Your task to perform on an android device: What is the news today? Image 0: 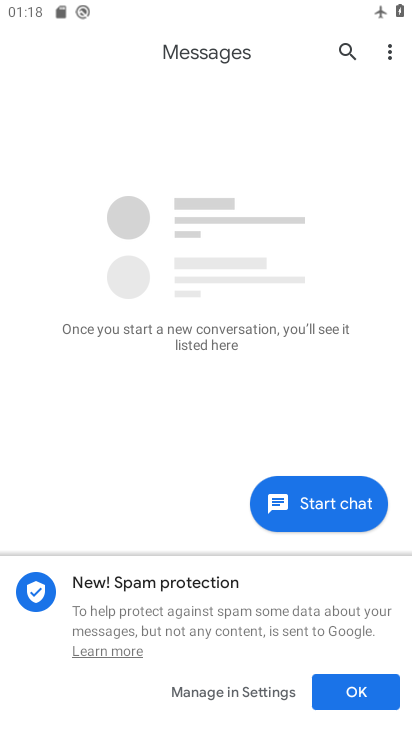
Step 0: press home button
Your task to perform on an android device: What is the news today? Image 1: 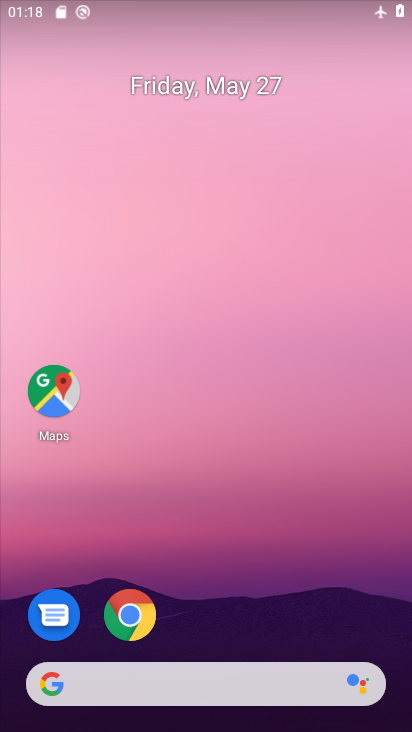
Step 1: drag from (5, 277) to (406, 375)
Your task to perform on an android device: What is the news today? Image 2: 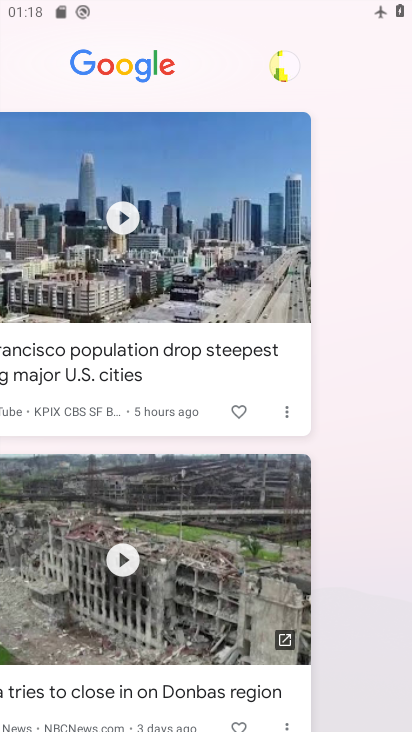
Step 2: drag from (306, 385) to (411, 596)
Your task to perform on an android device: What is the news today? Image 3: 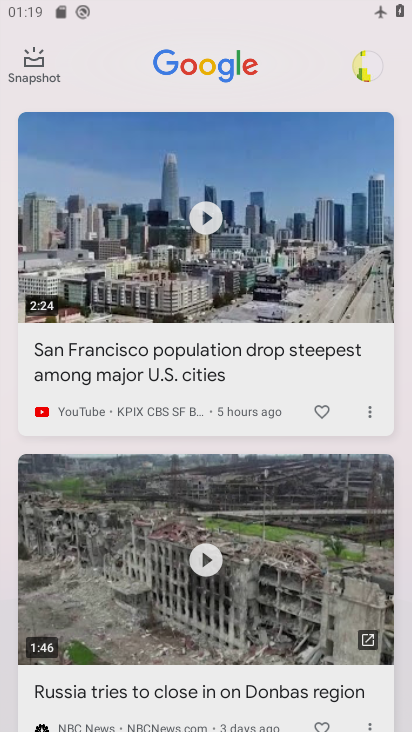
Step 3: drag from (387, 600) to (384, 525)
Your task to perform on an android device: What is the news today? Image 4: 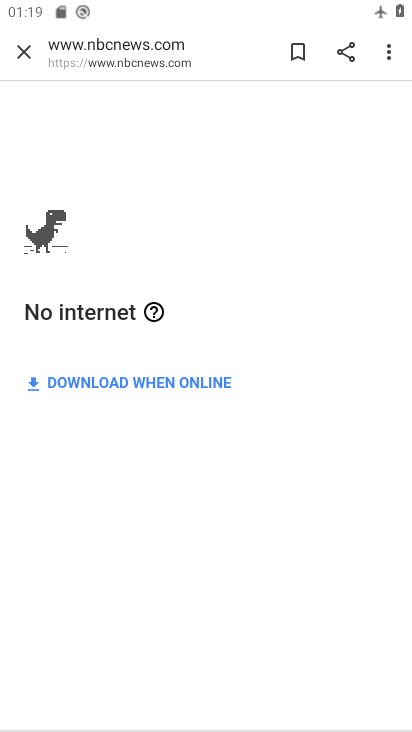
Step 4: press home button
Your task to perform on an android device: What is the news today? Image 5: 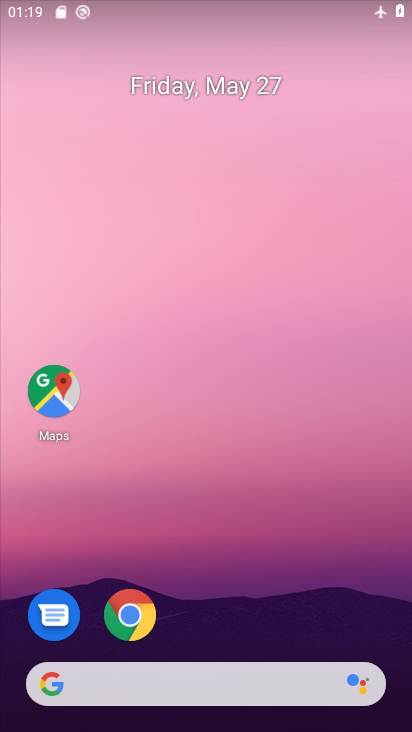
Step 5: drag from (3, 236) to (411, 365)
Your task to perform on an android device: What is the news today? Image 6: 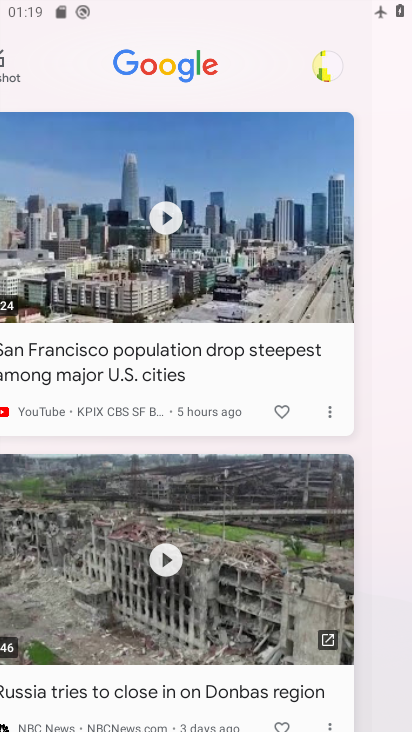
Step 6: click (392, 369)
Your task to perform on an android device: What is the news today? Image 7: 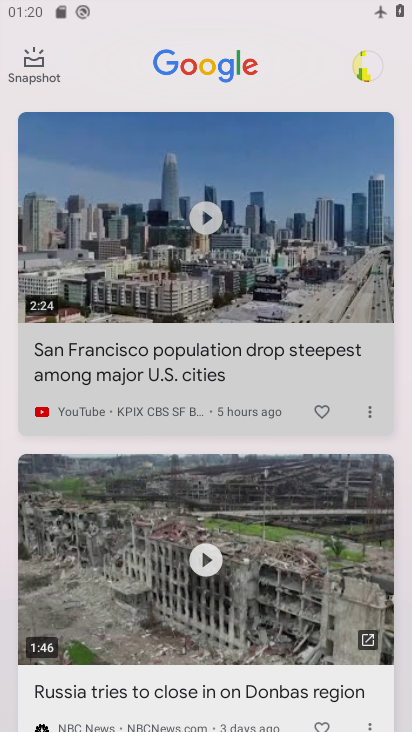
Step 7: task complete